Your task to perform on an android device: Turn on the flashlight Image 0: 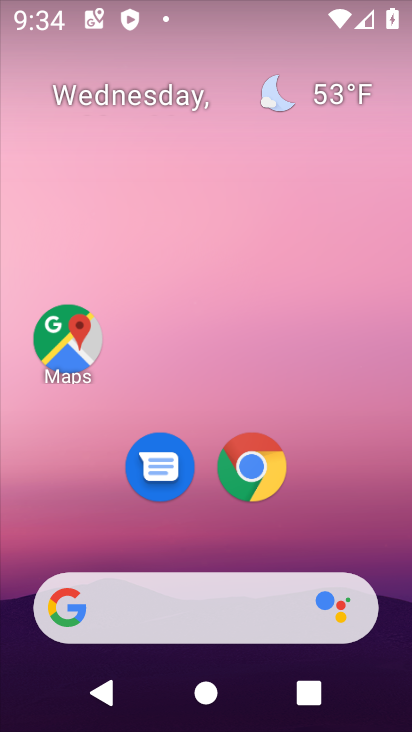
Step 0: press home button
Your task to perform on an android device: Turn on the flashlight Image 1: 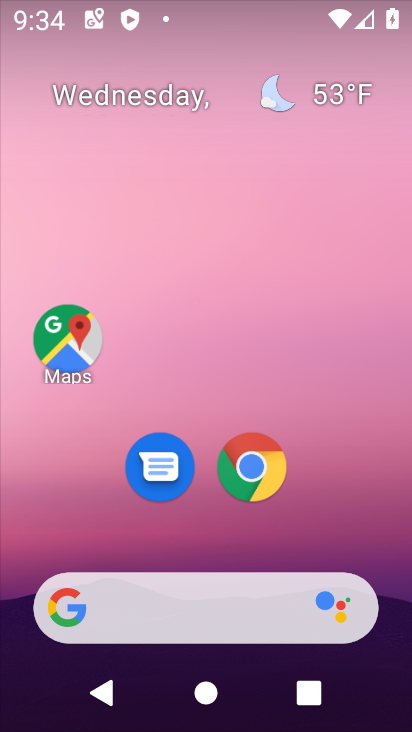
Step 1: task complete